Your task to perform on an android device: Go to battery settings Image 0: 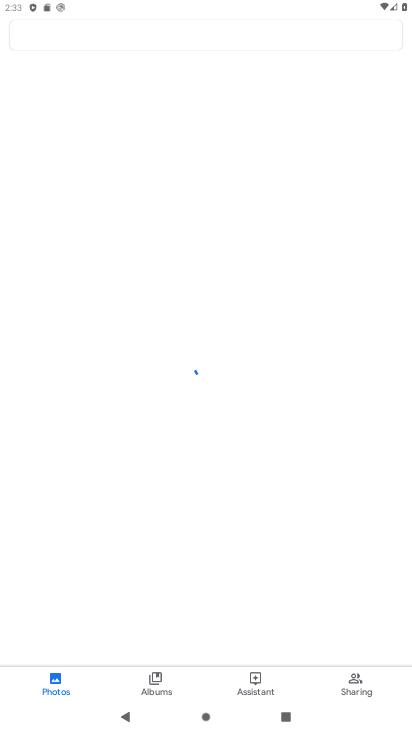
Step 0: press home button
Your task to perform on an android device: Go to battery settings Image 1: 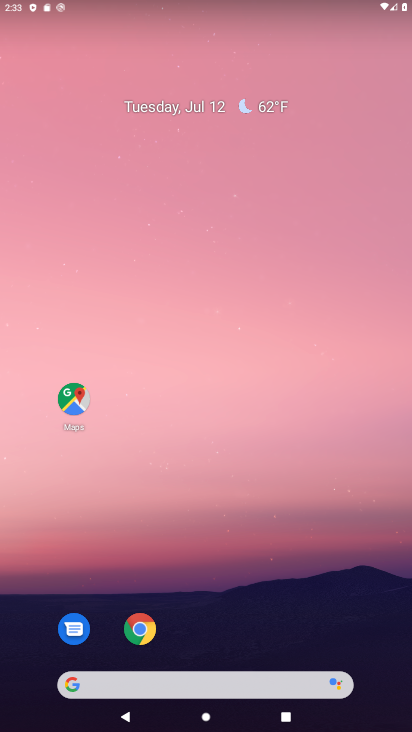
Step 1: drag from (293, 638) to (253, 129)
Your task to perform on an android device: Go to battery settings Image 2: 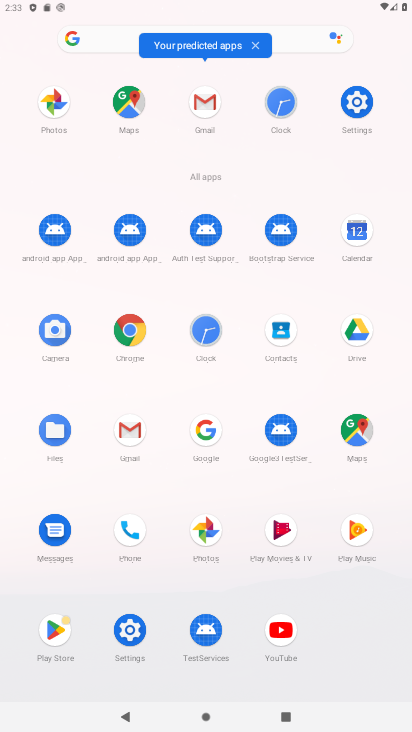
Step 2: click (344, 94)
Your task to perform on an android device: Go to battery settings Image 3: 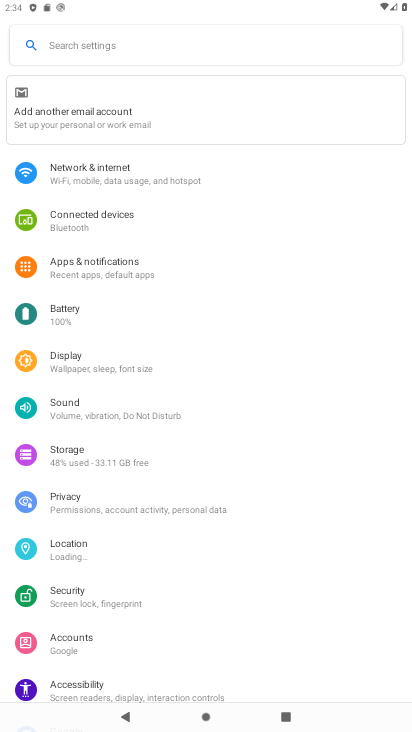
Step 3: click (266, 316)
Your task to perform on an android device: Go to battery settings Image 4: 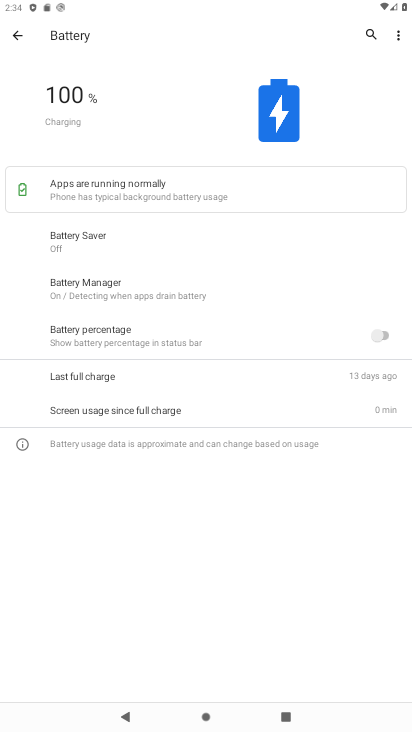
Step 4: task complete